Your task to perform on an android device: change the clock style Image 0: 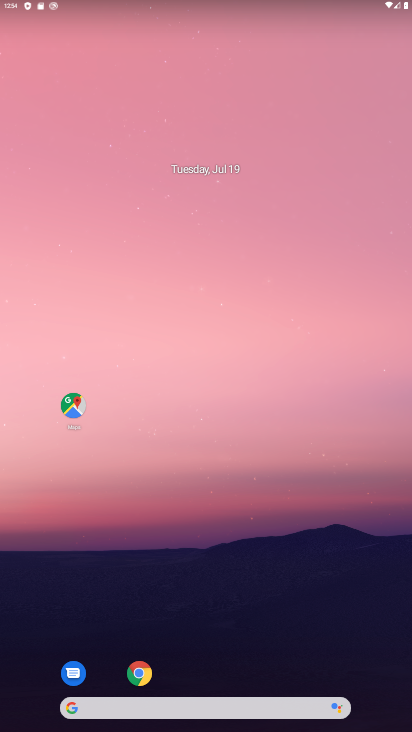
Step 0: drag from (220, 692) to (222, 26)
Your task to perform on an android device: change the clock style Image 1: 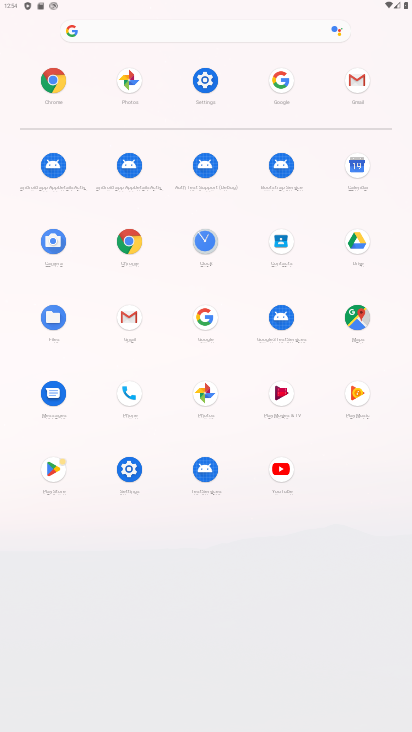
Step 1: click (197, 254)
Your task to perform on an android device: change the clock style Image 2: 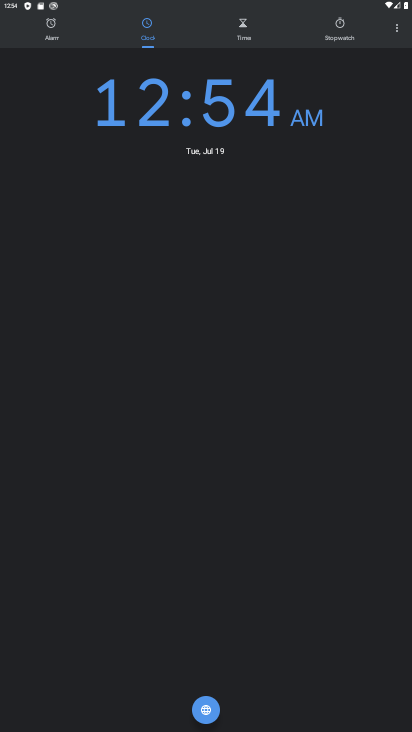
Step 2: click (394, 34)
Your task to perform on an android device: change the clock style Image 3: 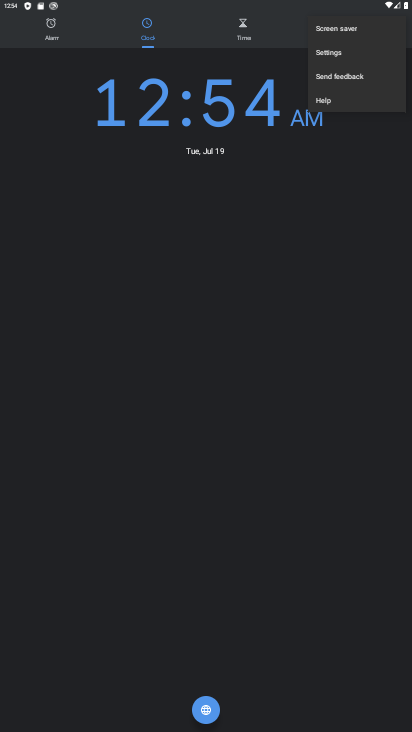
Step 3: click (333, 47)
Your task to perform on an android device: change the clock style Image 4: 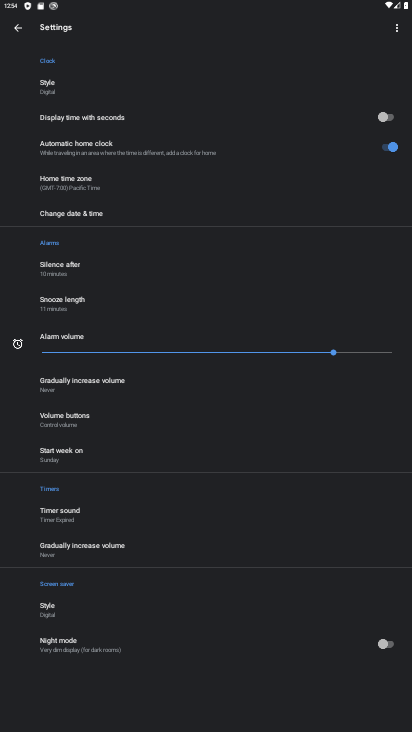
Step 4: click (39, 90)
Your task to perform on an android device: change the clock style Image 5: 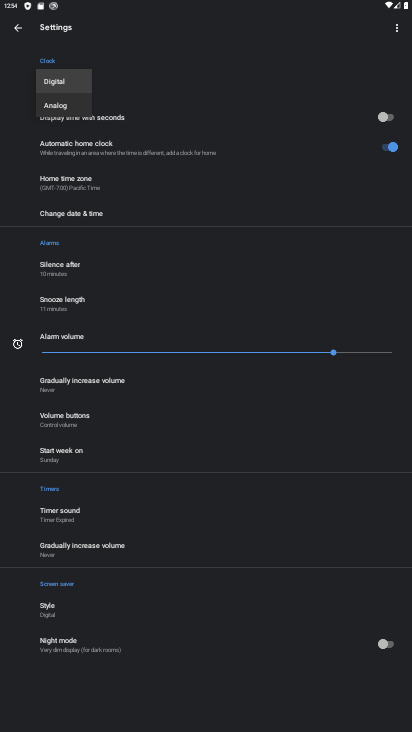
Step 5: click (65, 105)
Your task to perform on an android device: change the clock style Image 6: 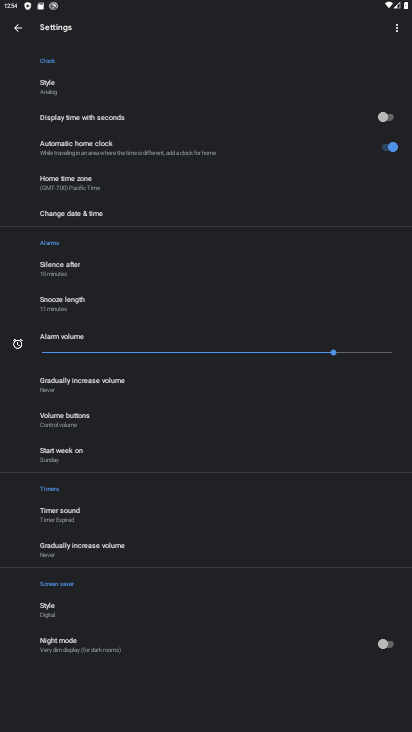
Step 6: task complete